Your task to perform on an android device: Show me productivity apps on the Play Store Image 0: 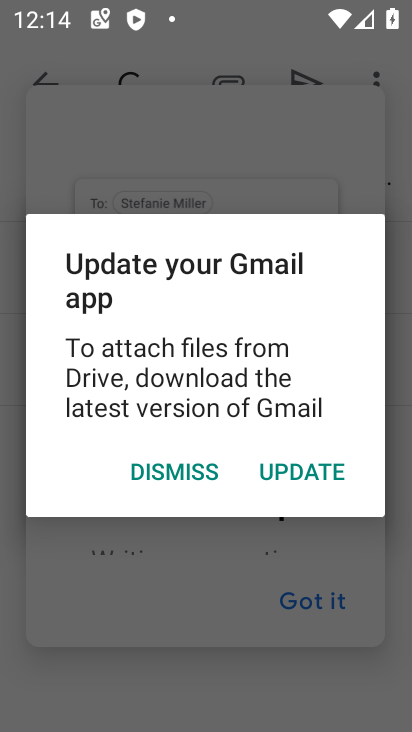
Step 0: press home button
Your task to perform on an android device: Show me productivity apps on the Play Store Image 1: 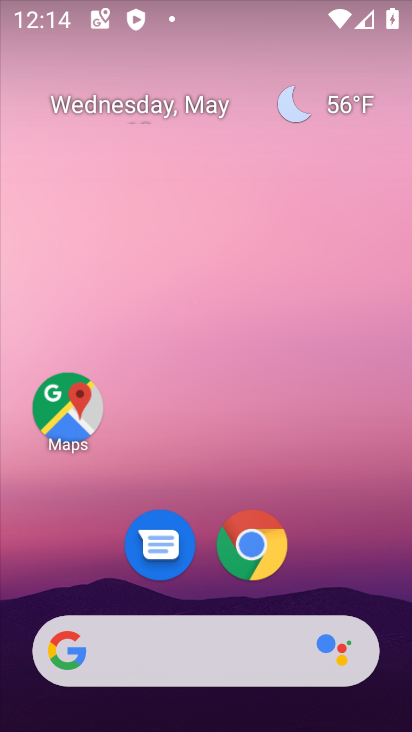
Step 1: drag from (326, 572) to (209, 68)
Your task to perform on an android device: Show me productivity apps on the Play Store Image 2: 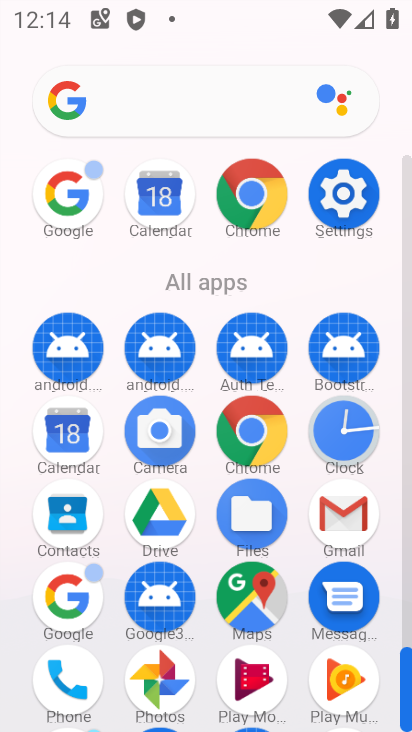
Step 2: drag from (110, 664) to (105, 371)
Your task to perform on an android device: Show me productivity apps on the Play Store Image 3: 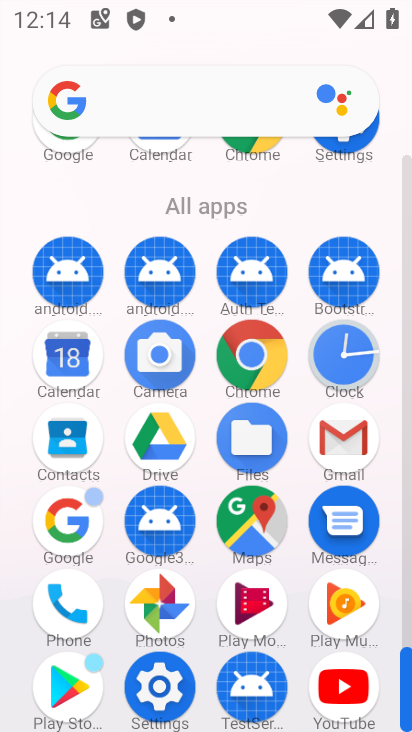
Step 3: click (68, 681)
Your task to perform on an android device: Show me productivity apps on the Play Store Image 4: 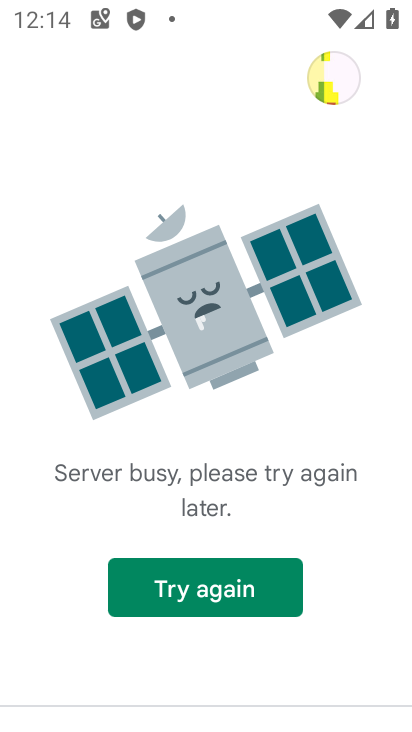
Step 4: click (187, 599)
Your task to perform on an android device: Show me productivity apps on the Play Store Image 5: 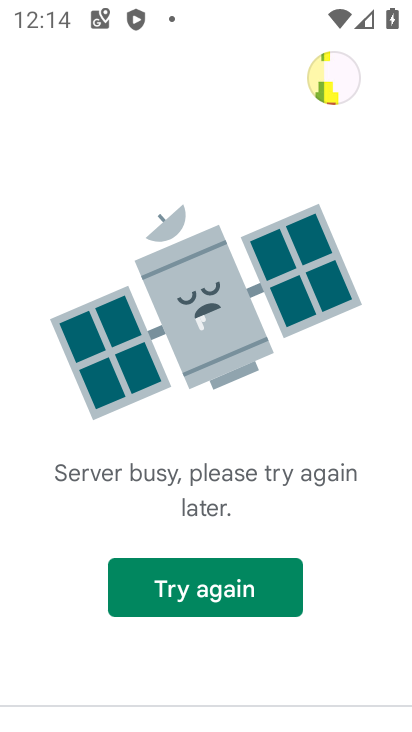
Step 5: click (187, 599)
Your task to perform on an android device: Show me productivity apps on the Play Store Image 6: 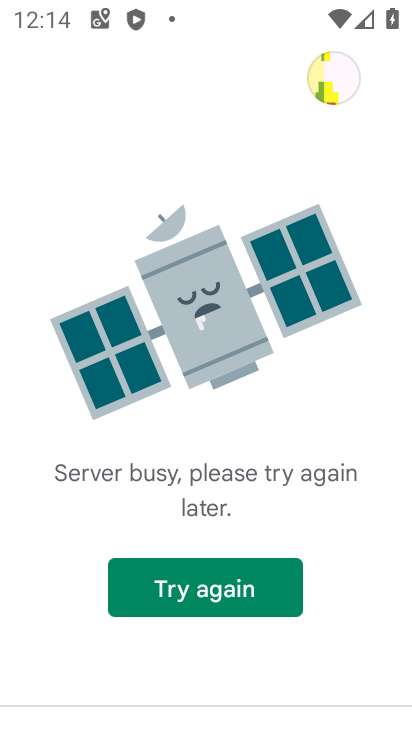
Step 6: task complete